Your task to perform on an android device: Clear all items from cart on costco. Search for macbook air on costco, select the first entry, add it to the cart, then select checkout. Image 0: 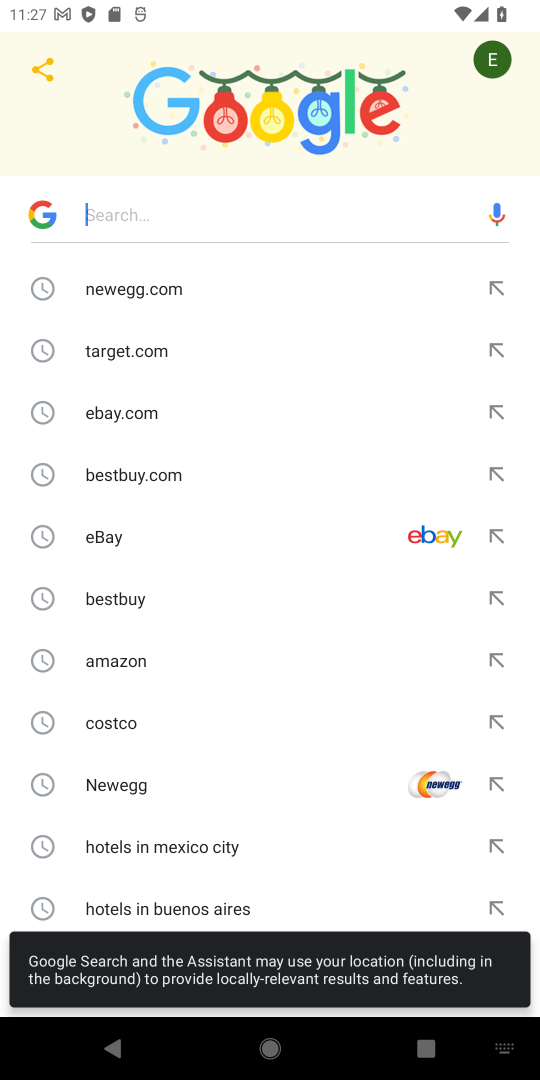
Step 0: press home button
Your task to perform on an android device: Clear all items from cart on costco. Search for macbook air on costco, select the first entry, add it to the cart, then select checkout. Image 1: 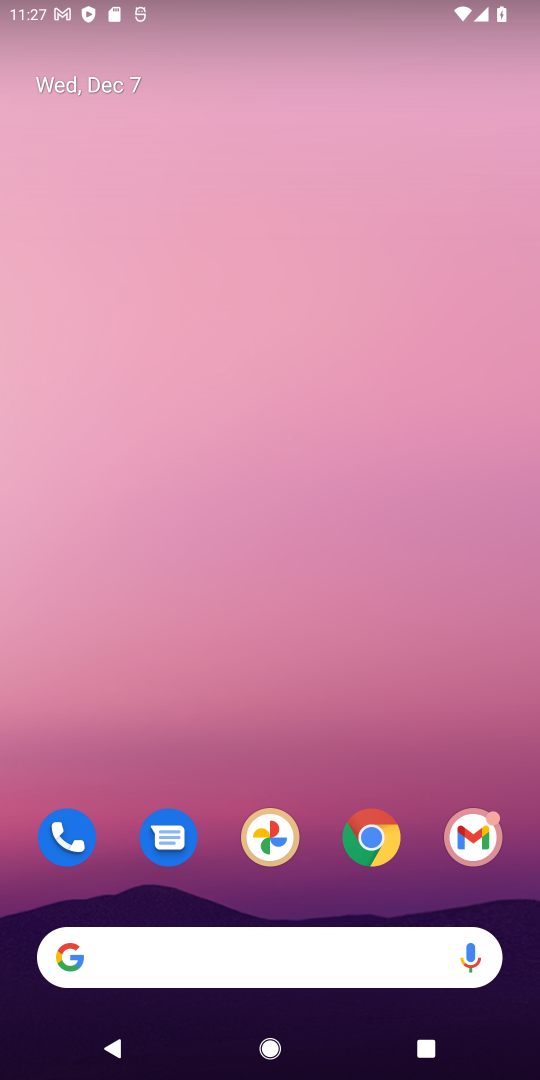
Step 1: click (361, 842)
Your task to perform on an android device: Clear all items from cart on costco. Search for macbook air on costco, select the first entry, add it to the cart, then select checkout. Image 2: 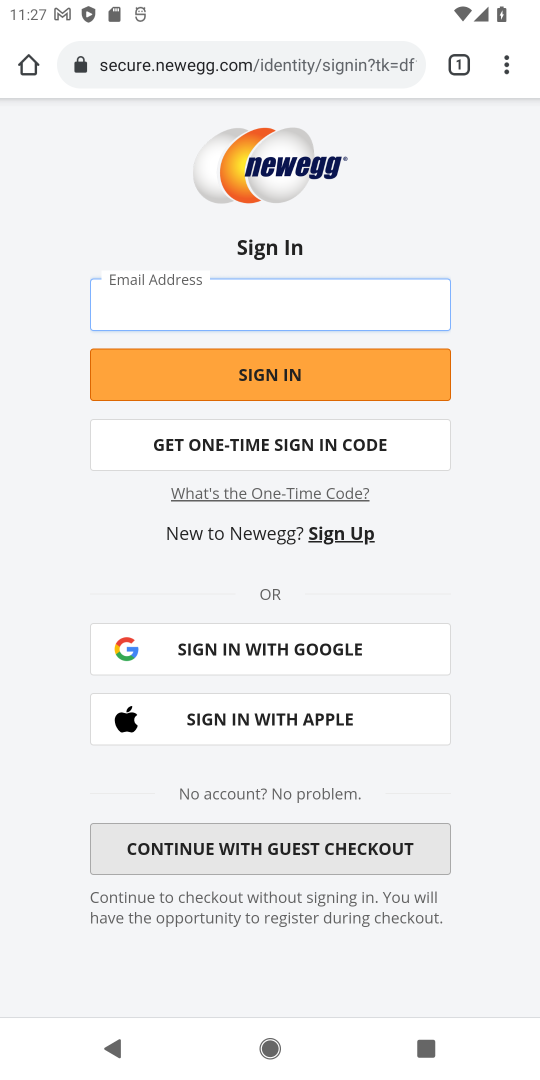
Step 2: click (350, 46)
Your task to perform on an android device: Clear all items from cart on costco. Search for macbook air on costco, select the first entry, add it to the cart, then select checkout. Image 3: 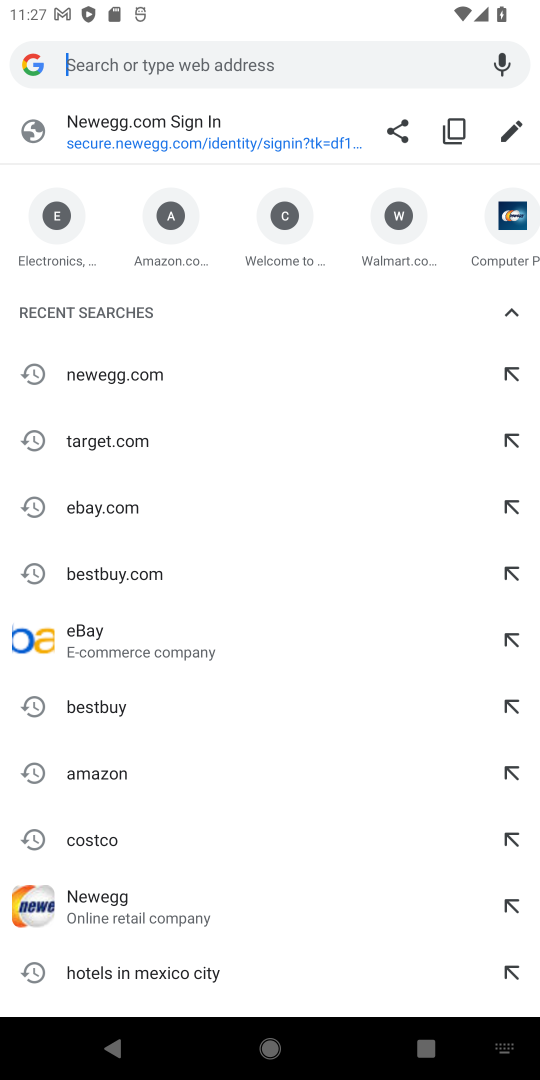
Step 3: click (100, 834)
Your task to perform on an android device: Clear all items from cart on costco. Search for macbook air on costco, select the first entry, add it to the cart, then select checkout. Image 4: 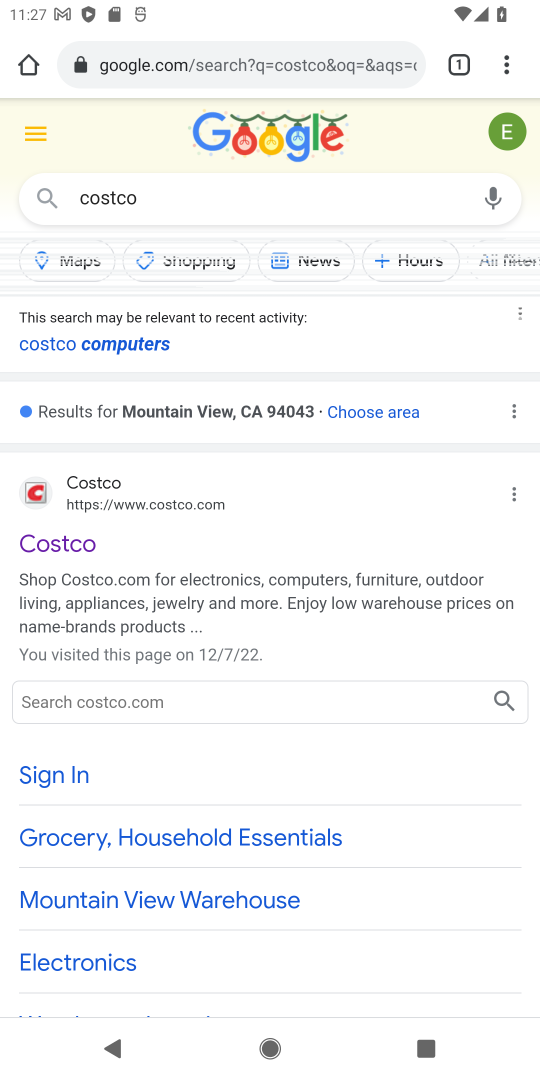
Step 4: click (186, 502)
Your task to perform on an android device: Clear all items from cart on costco. Search for macbook air on costco, select the first entry, add it to the cart, then select checkout. Image 5: 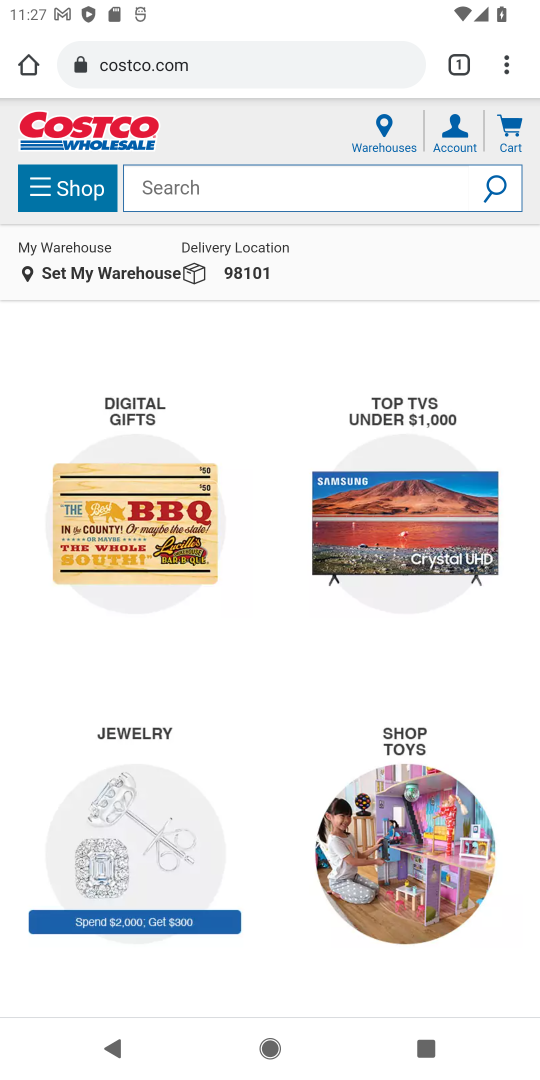
Step 5: click (509, 132)
Your task to perform on an android device: Clear all items from cart on costco. Search for macbook air on costco, select the first entry, add it to the cart, then select checkout. Image 6: 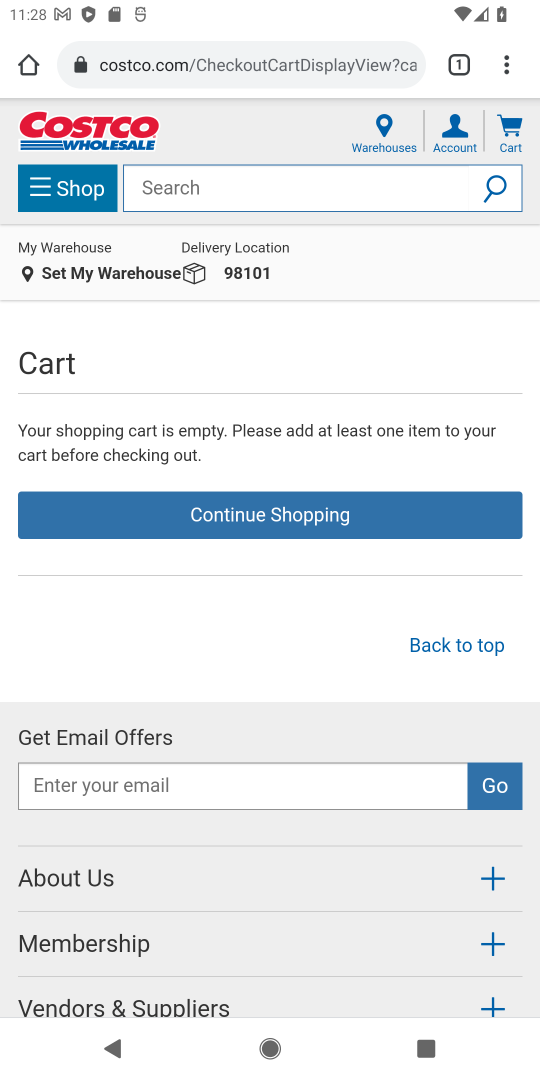
Step 6: click (294, 190)
Your task to perform on an android device: Clear all items from cart on costco. Search for macbook air on costco, select the first entry, add it to the cart, then select checkout. Image 7: 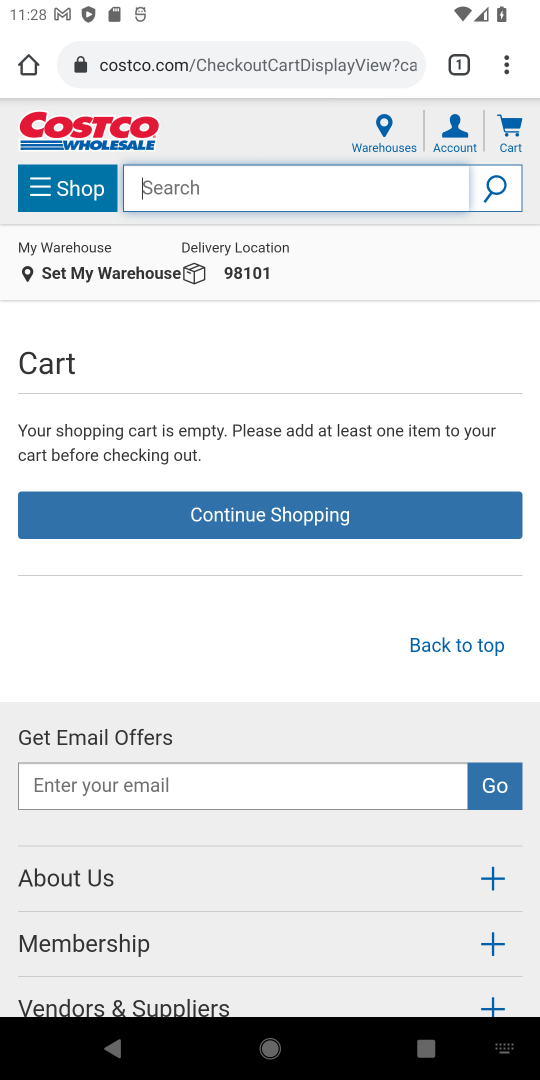
Step 7: type "macbook air"
Your task to perform on an android device: Clear all items from cart on costco. Search for macbook air on costco, select the first entry, add it to the cart, then select checkout. Image 8: 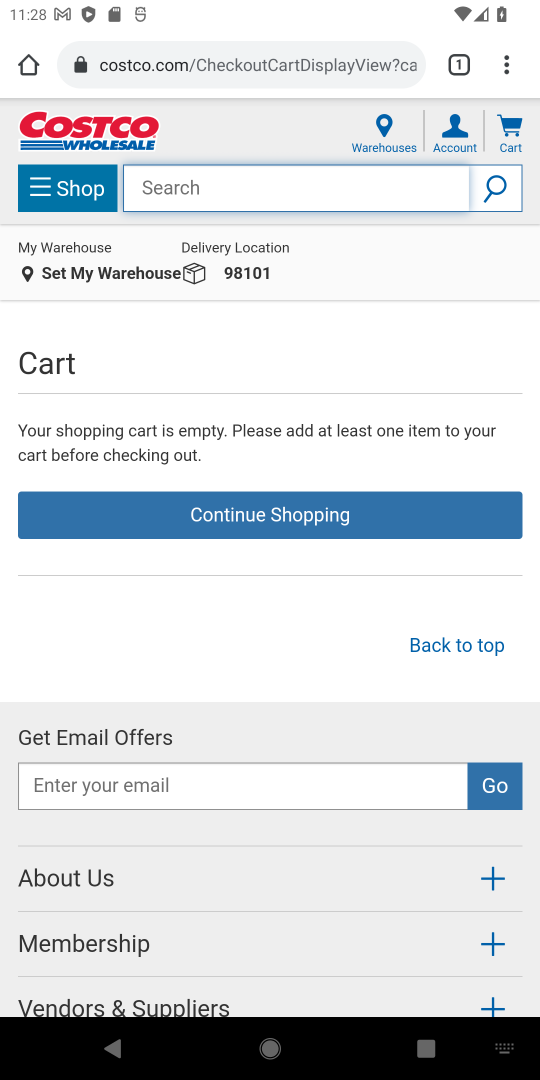
Step 8: press enter
Your task to perform on an android device: Clear all items from cart on costco. Search for macbook air on costco, select the first entry, add it to the cart, then select checkout. Image 9: 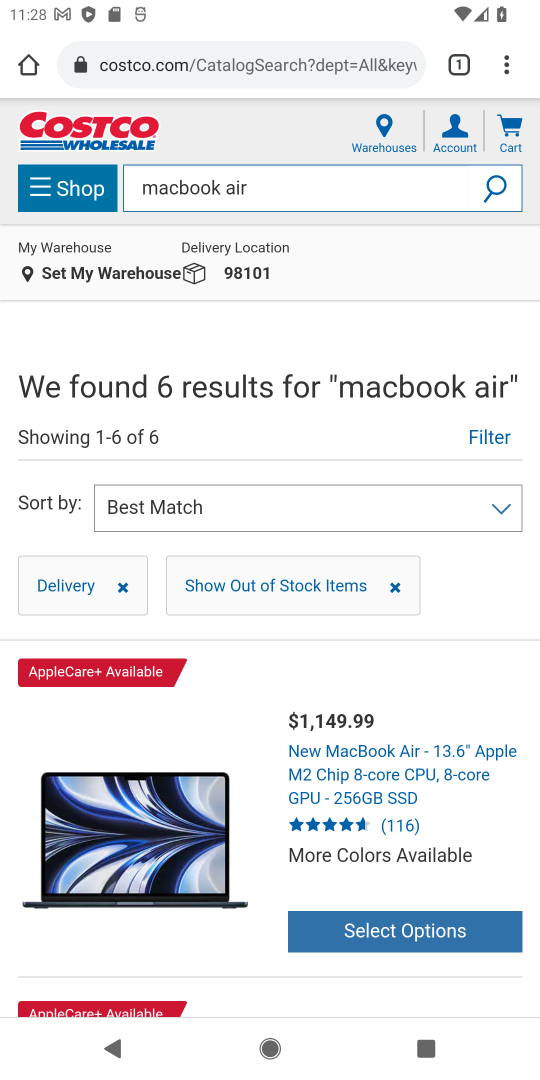
Step 9: click (164, 836)
Your task to perform on an android device: Clear all items from cart on costco. Search for macbook air on costco, select the first entry, add it to the cart, then select checkout. Image 10: 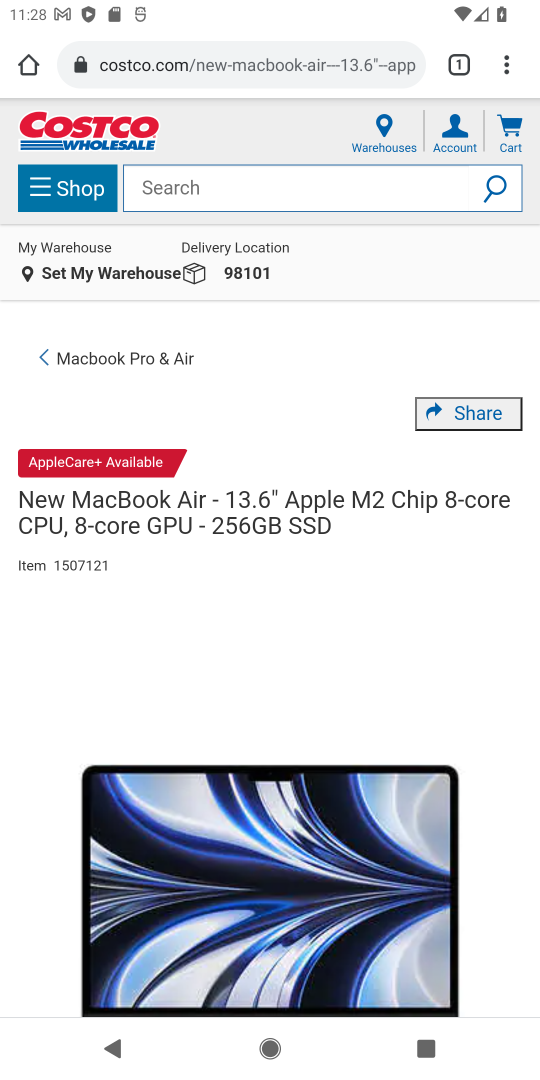
Step 10: drag from (424, 659) to (522, 19)
Your task to perform on an android device: Clear all items from cart on costco. Search for macbook air on costco, select the first entry, add it to the cart, then select checkout. Image 11: 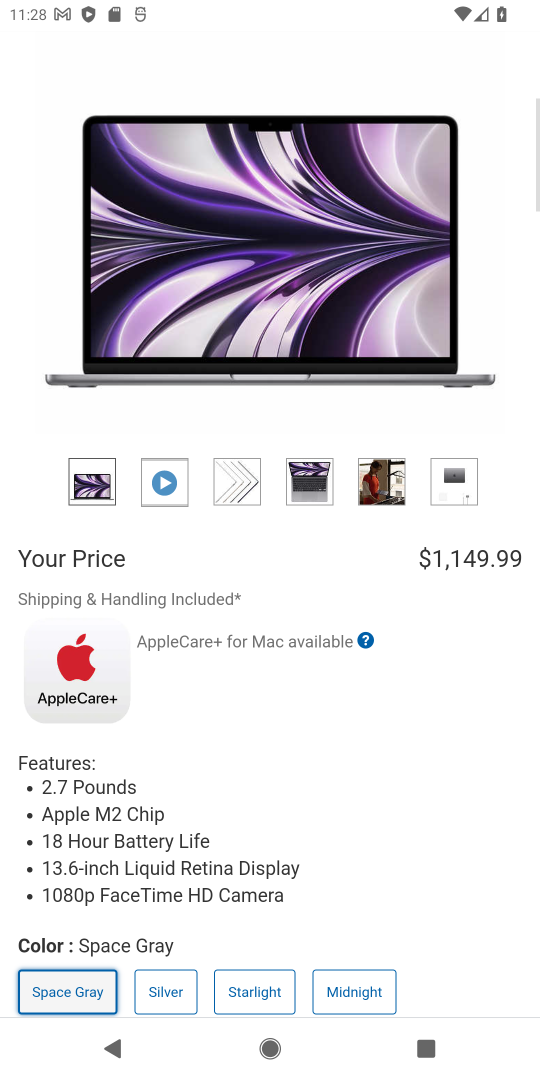
Step 11: drag from (448, 771) to (486, 248)
Your task to perform on an android device: Clear all items from cart on costco. Search for macbook air on costco, select the first entry, add it to the cart, then select checkout. Image 12: 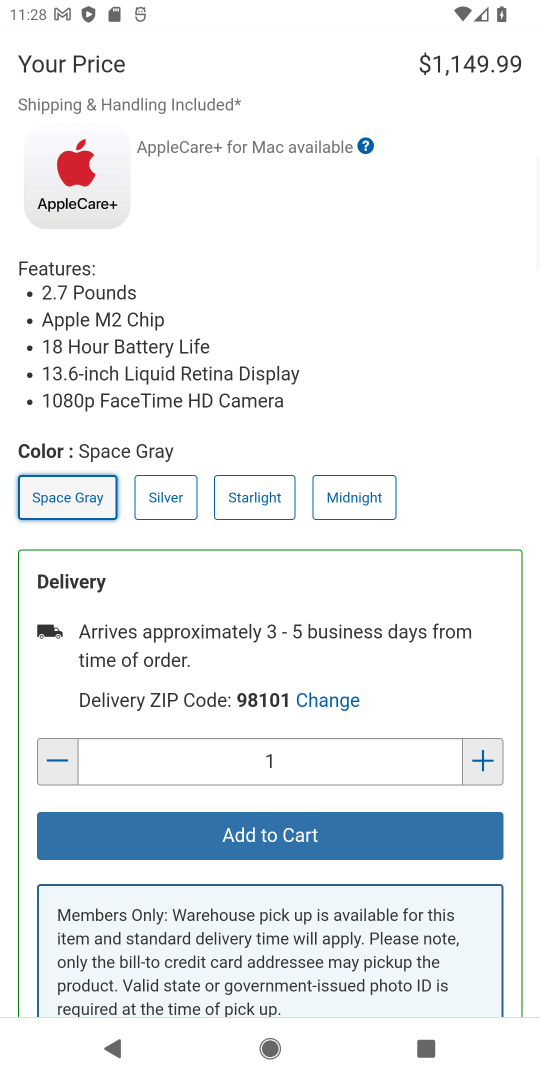
Step 12: click (281, 837)
Your task to perform on an android device: Clear all items from cart on costco. Search for macbook air on costco, select the first entry, add it to the cart, then select checkout. Image 13: 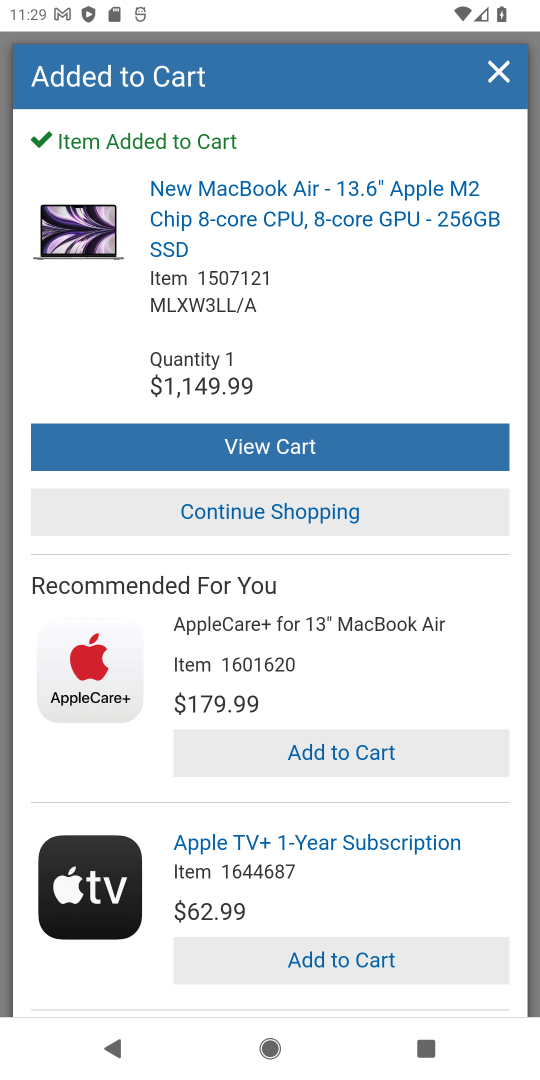
Step 13: click (308, 434)
Your task to perform on an android device: Clear all items from cart on costco. Search for macbook air on costco, select the first entry, add it to the cart, then select checkout. Image 14: 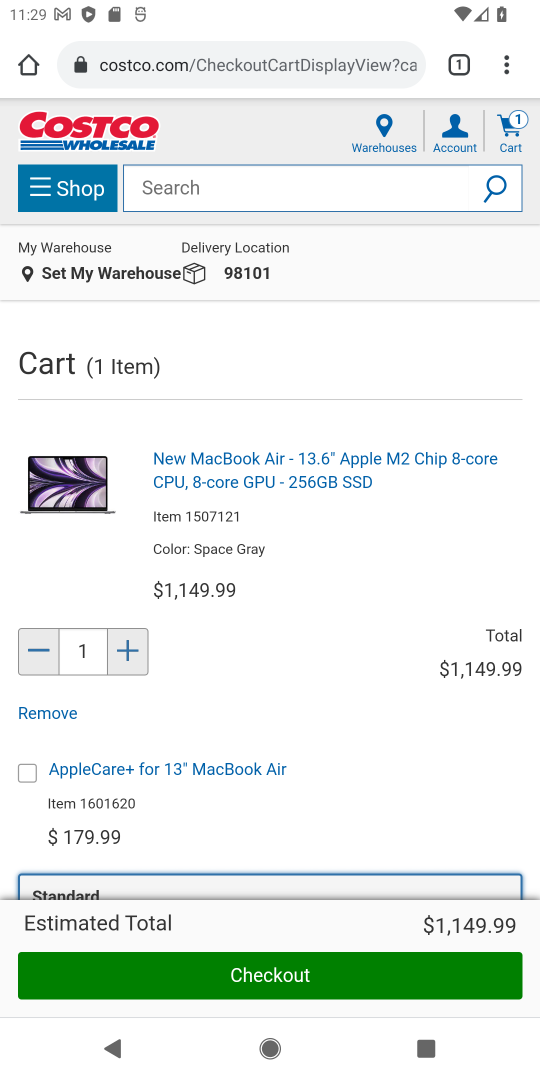
Step 14: click (299, 977)
Your task to perform on an android device: Clear all items from cart on costco. Search for macbook air on costco, select the first entry, add it to the cart, then select checkout. Image 15: 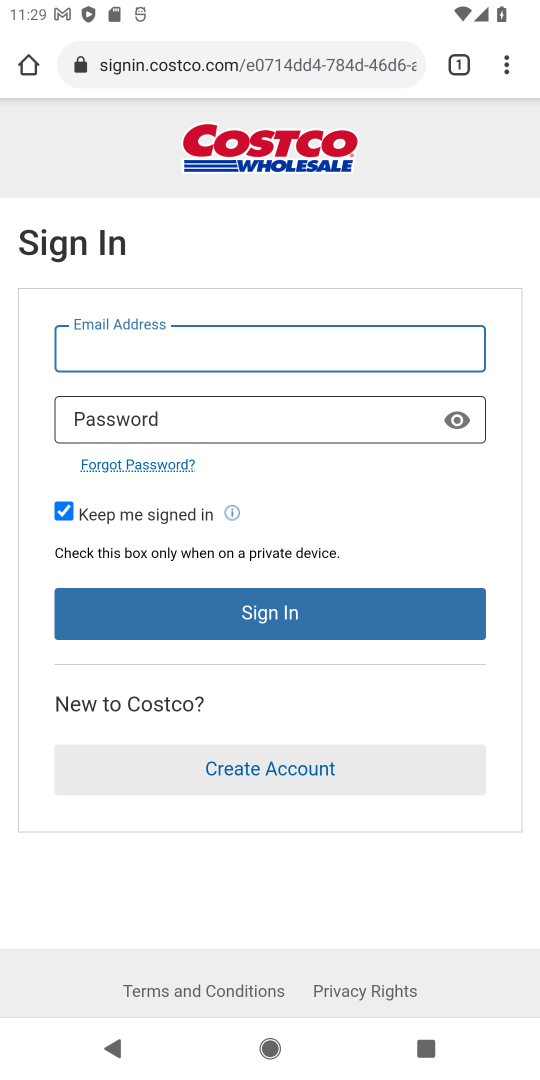
Step 15: task complete